Your task to perform on an android device: Show me popular videos on Youtube Image 0: 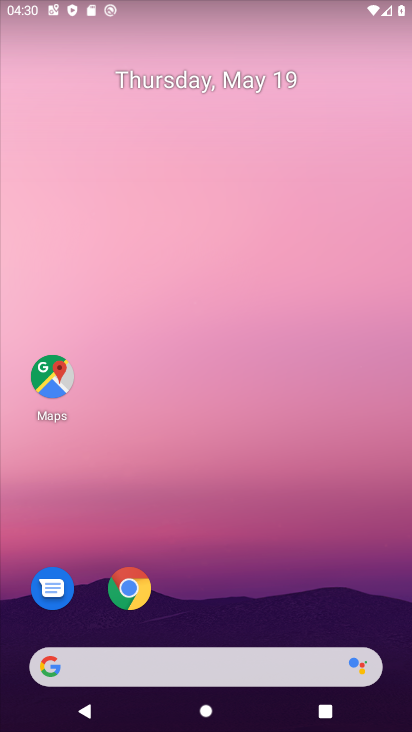
Step 0: drag from (209, 603) to (249, 81)
Your task to perform on an android device: Show me popular videos on Youtube Image 1: 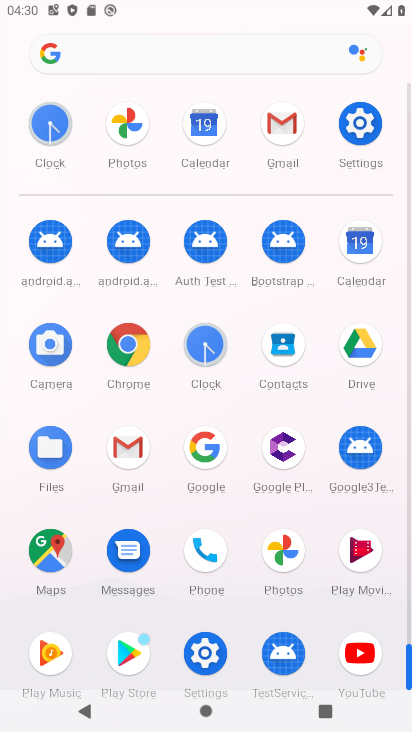
Step 1: click (360, 651)
Your task to perform on an android device: Show me popular videos on Youtube Image 2: 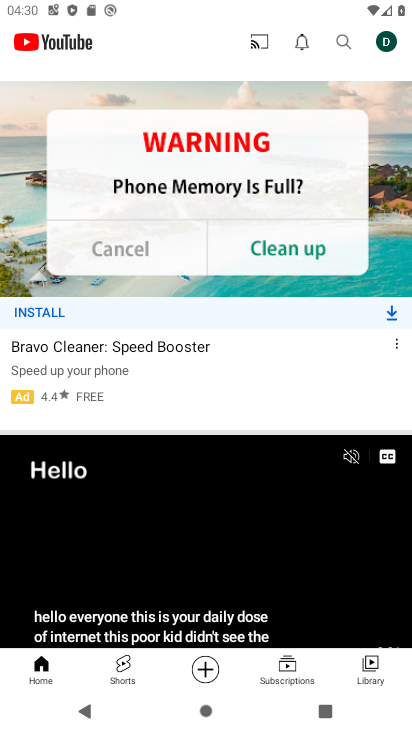
Step 2: drag from (193, 193) to (173, 484)
Your task to perform on an android device: Show me popular videos on Youtube Image 3: 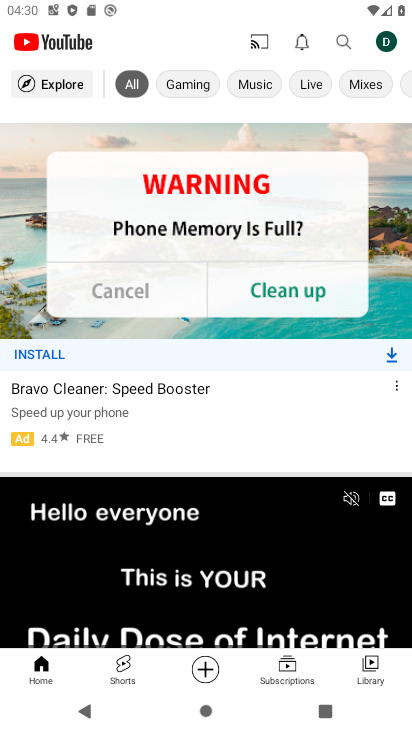
Step 3: click (51, 81)
Your task to perform on an android device: Show me popular videos on Youtube Image 4: 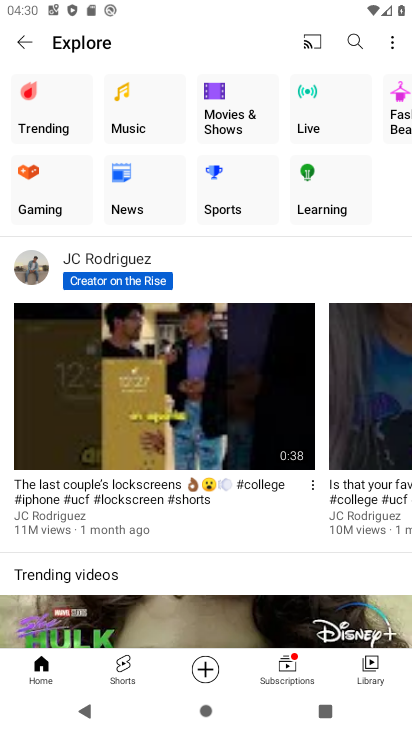
Step 4: click (34, 101)
Your task to perform on an android device: Show me popular videos on Youtube Image 5: 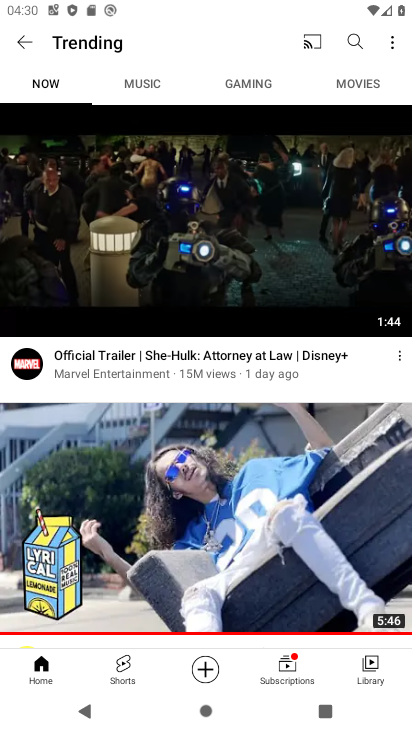
Step 5: task complete